Your task to perform on an android device: What's the weather going to be tomorrow? Image 0: 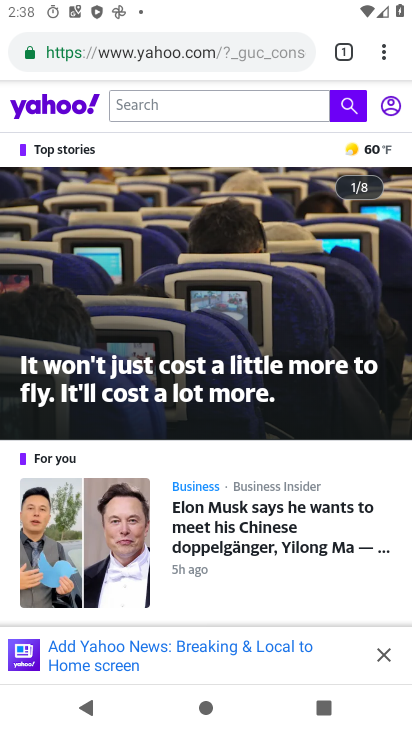
Step 0: press home button
Your task to perform on an android device: What's the weather going to be tomorrow? Image 1: 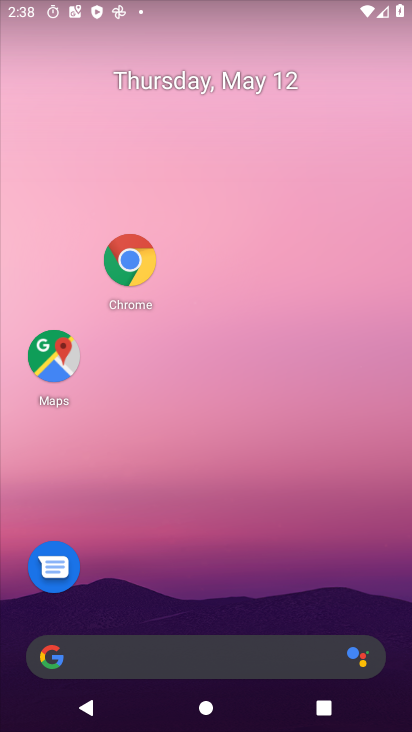
Step 1: drag from (234, 641) to (270, 232)
Your task to perform on an android device: What's the weather going to be tomorrow? Image 2: 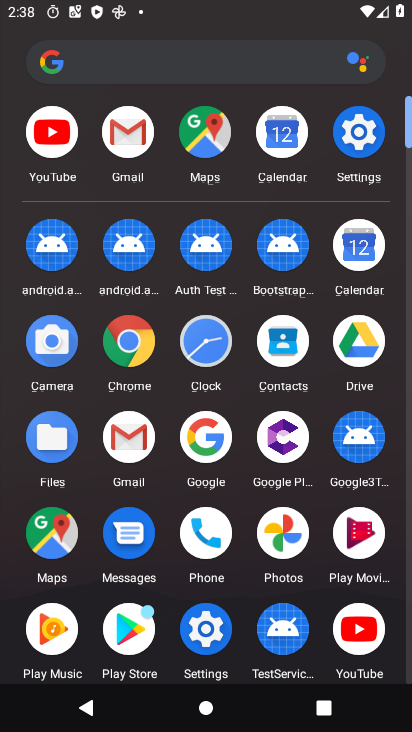
Step 2: click (209, 430)
Your task to perform on an android device: What's the weather going to be tomorrow? Image 3: 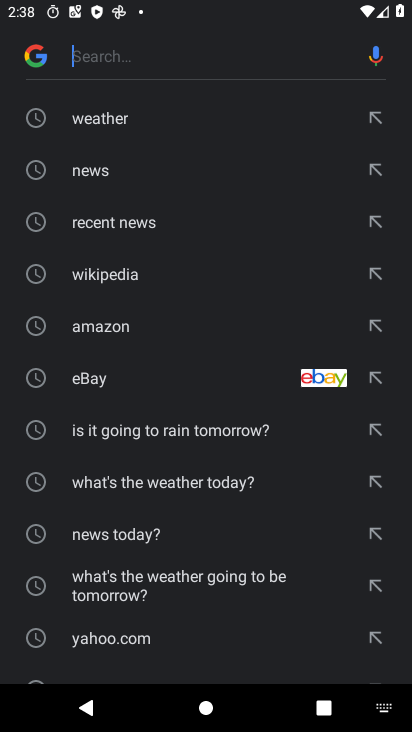
Step 3: click (134, 587)
Your task to perform on an android device: What's the weather going to be tomorrow? Image 4: 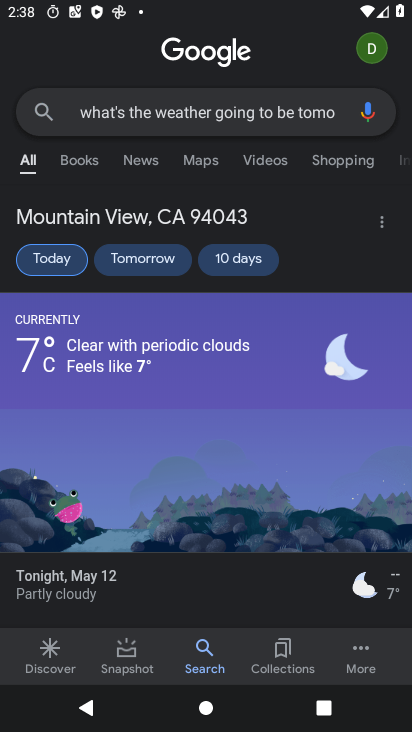
Step 4: click (146, 254)
Your task to perform on an android device: What's the weather going to be tomorrow? Image 5: 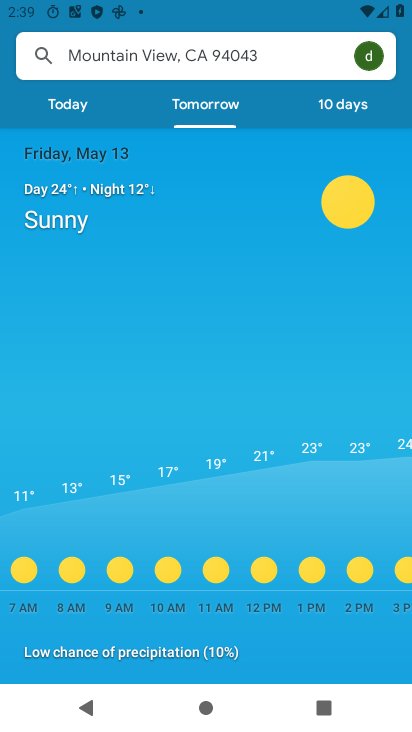
Step 5: task complete